Your task to perform on an android device: Go to ESPN.com Image 0: 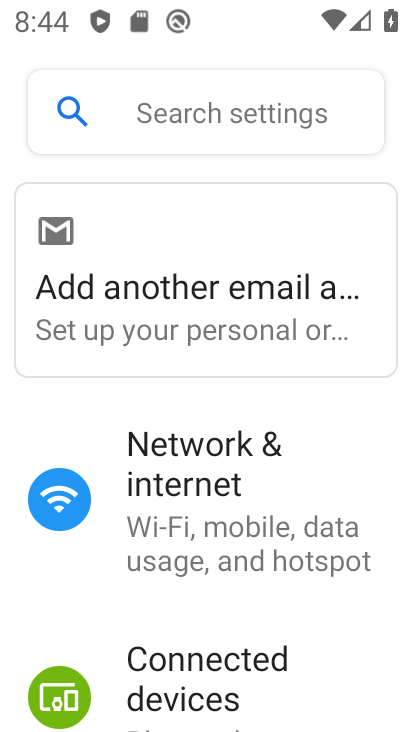
Step 0: press home button
Your task to perform on an android device: Go to ESPN.com Image 1: 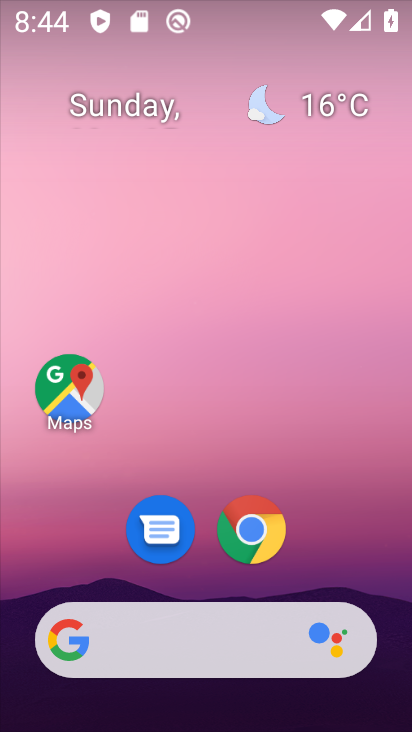
Step 1: click (241, 556)
Your task to perform on an android device: Go to ESPN.com Image 2: 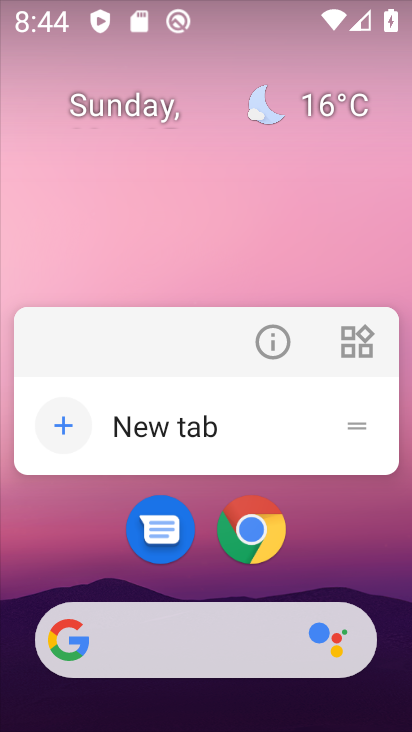
Step 2: click (250, 528)
Your task to perform on an android device: Go to ESPN.com Image 3: 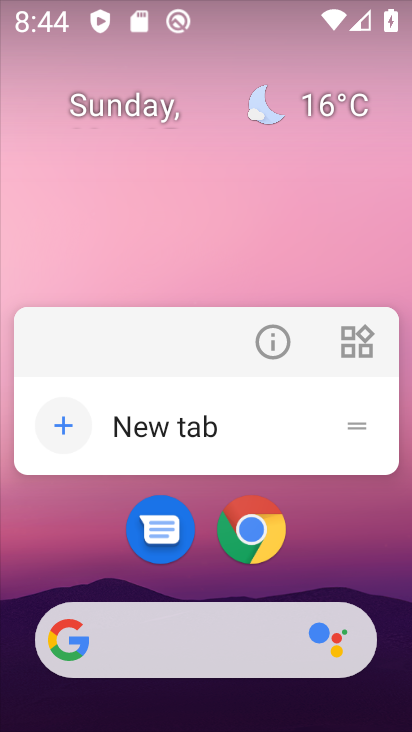
Step 3: click (257, 544)
Your task to perform on an android device: Go to ESPN.com Image 4: 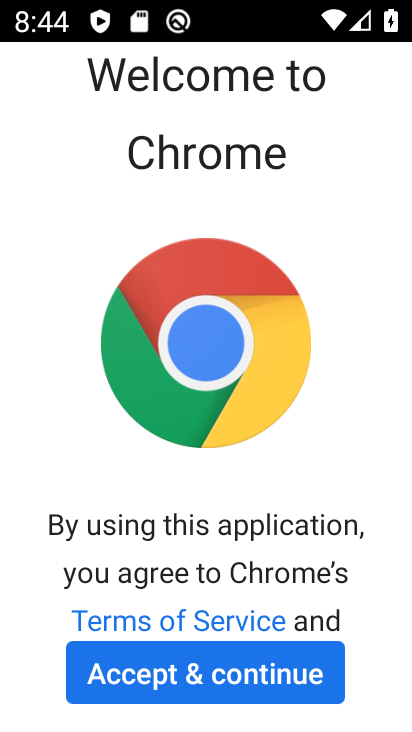
Step 4: click (257, 532)
Your task to perform on an android device: Go to ESPN.com Image 5: 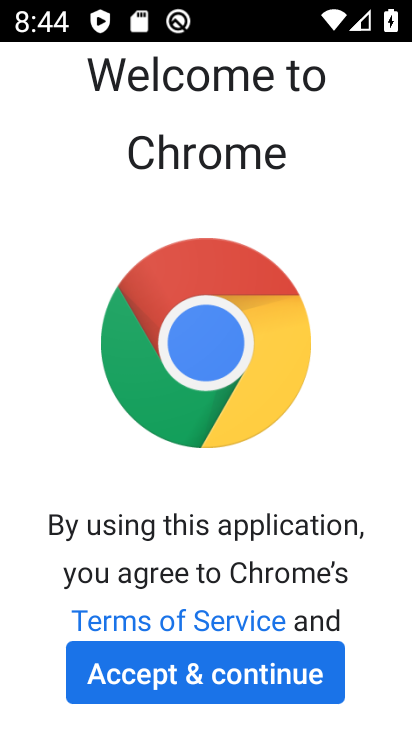
Step 5: click (250, 687)
Your task to perform on an android device: Go to ESPN.com Image 6: 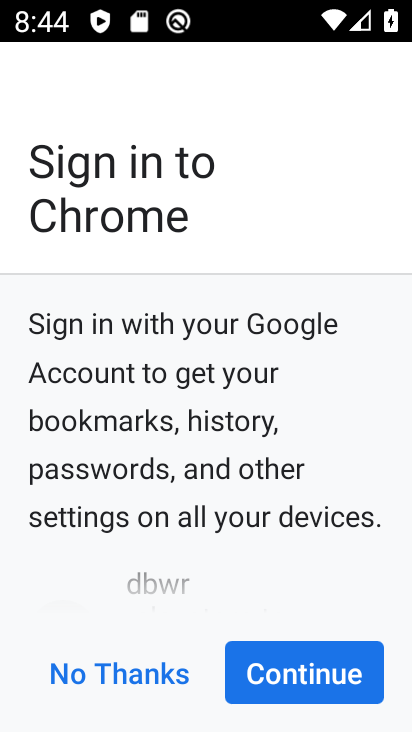
Step 6: click (307, 686)
Your task to perform on an android device: Go to ESPN.com Image 7: 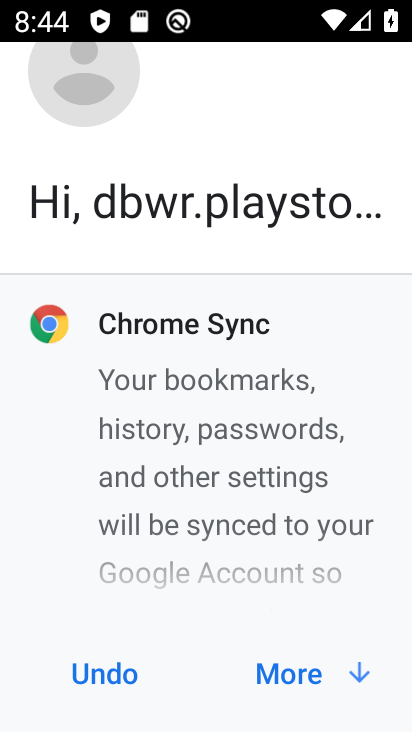
Step 7: click (307, 686)
Your task to perform on an android device: Go to ESPN.com Image 8: 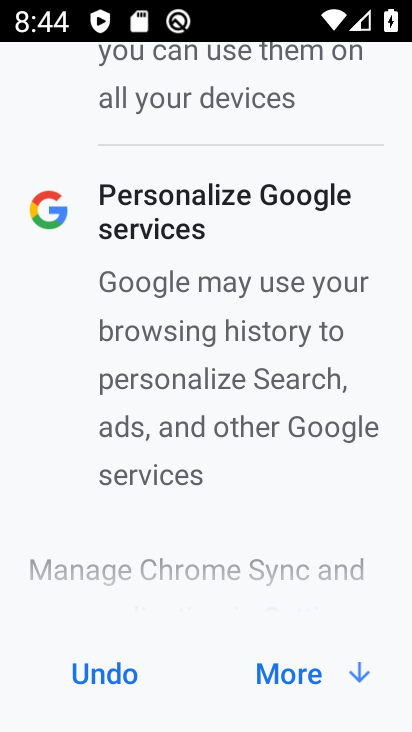
Step 8: click (304, 687)
Your task to perform on an android device: Go to ESPN.com Image 9: 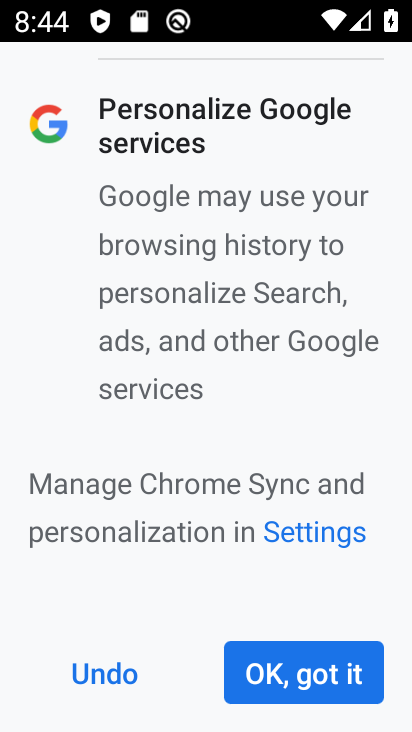
Step 9: click (307, 713)
Your task to perform on an android device: Go to ESPN.com Image 10: 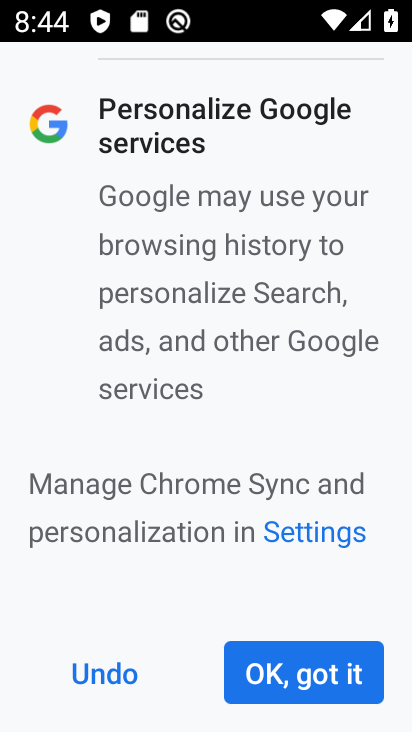
Step 10: click (301, 687)
Your task to perform on an android device: Go to ESPN.com Image 11: 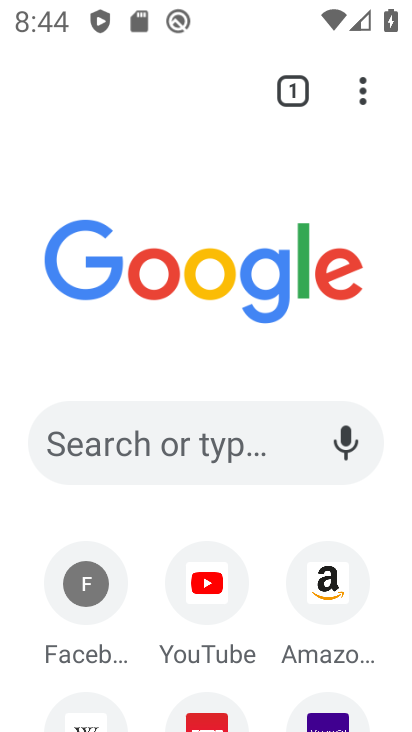
Step 11: drag from (195, 680) to (269, 475)
Your task to perform on an android device: Go to ESPN.com Image 12: 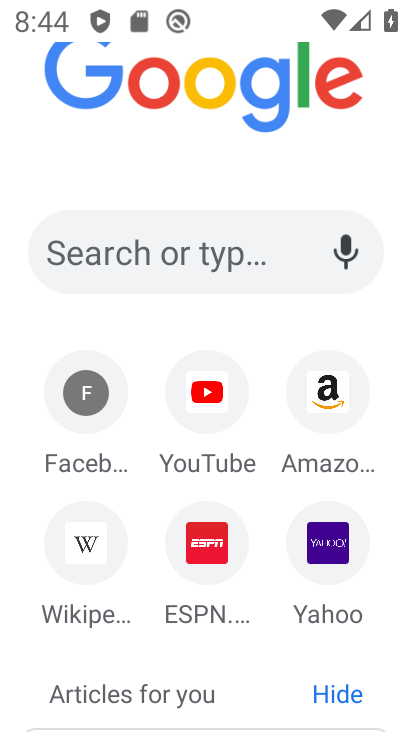
Step 12: click (211, 558)
Your task to perform on an android device: Go to ESPN.com Image 13: 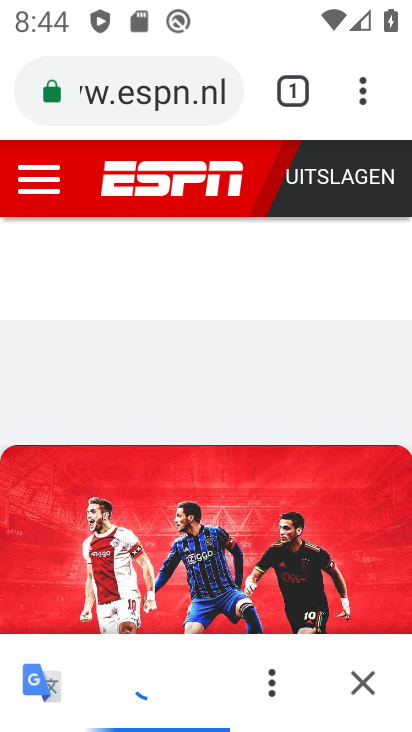
Step 13: click (362, 694)
Your task to perform on an android device: Go to ESPN.com Image 14: 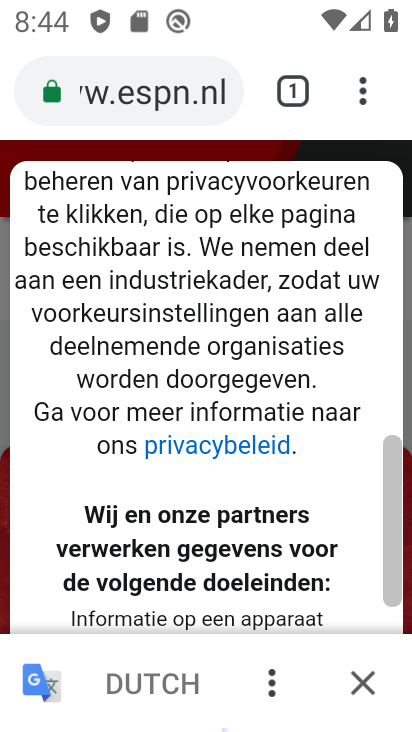
Step 14: drag from (220, 679) to (341, 253)
Your task to perform on an android device: Go to ESPN.com Image 15: 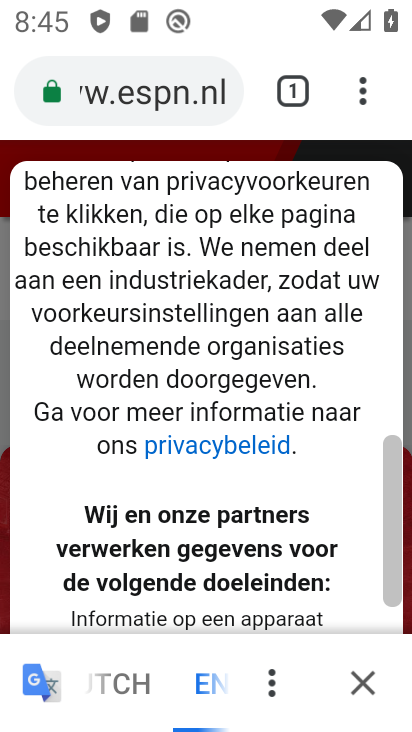
Step 15: click (376, 693)
Your task to perform on an android device: Go to ESPN.com Image 16: 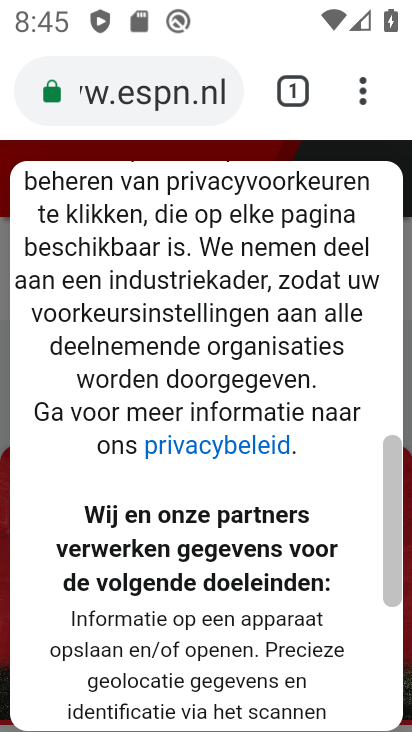
Step 16: drag from (244, 618) to (364, 224)
Your task to perform on an android device: Go to ESPN.com Image 17: 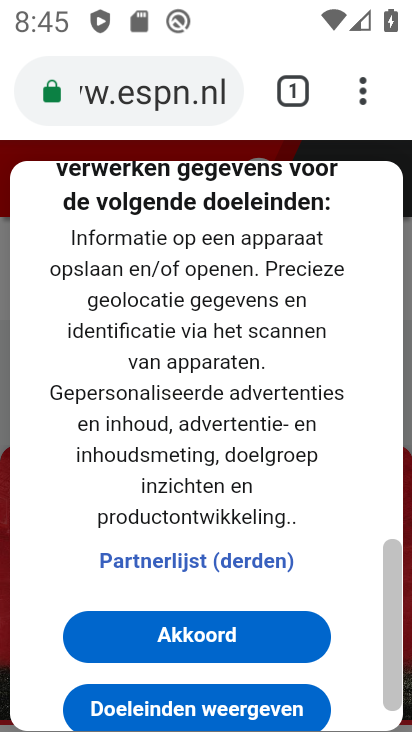
Step 17: click (210, 622)
Your task to perform on an android device: Go to ESPN.com Image 18: 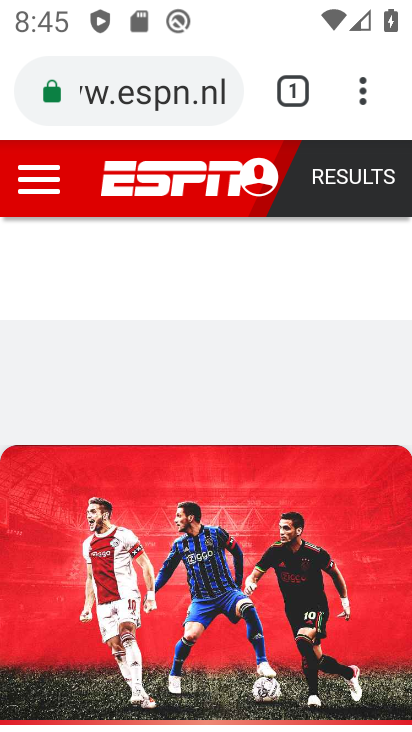
Step 18: task complete